Your task to perform on an android device: Open wifi settings Image 0: 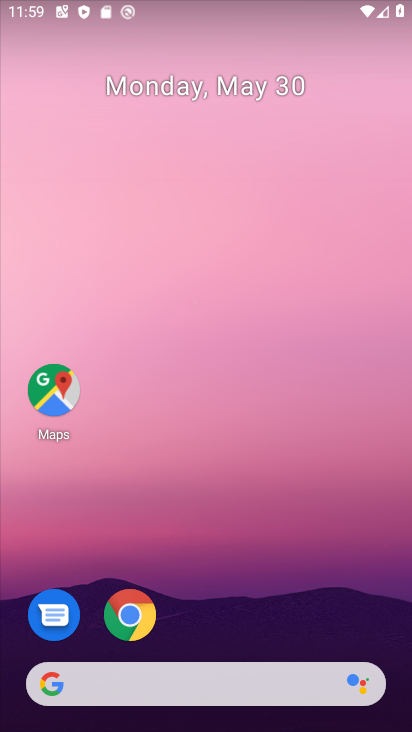
Step 0: drag from (254, 644) to (252, 17)
Your task to perform on an android device: Open wifi settings Image 1: 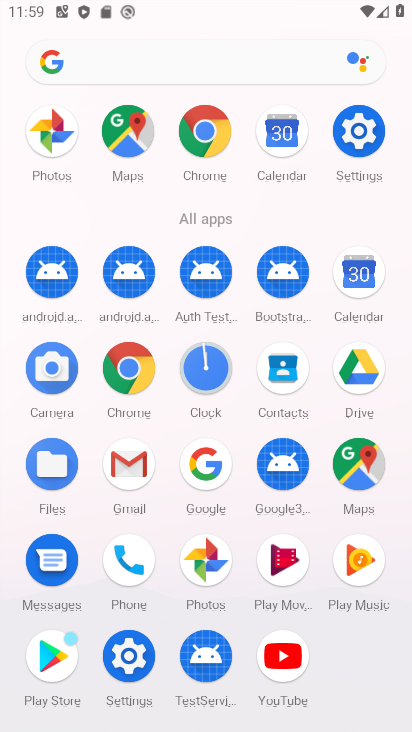
Step 1: click (365, 176)
Your task to perform on an android device: Open wifi settings Image 2: 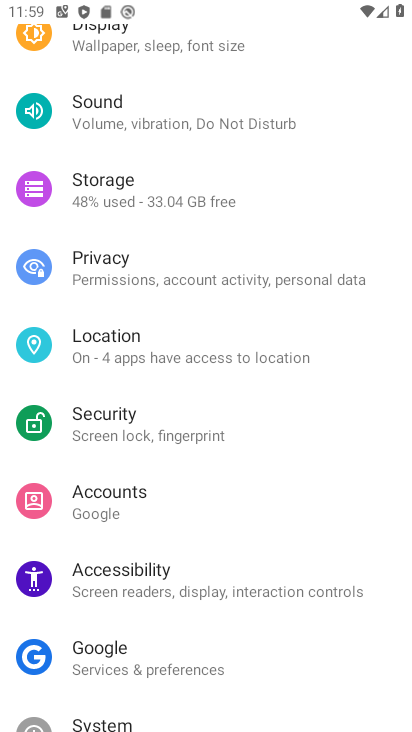
Step 2: drag from (242, 182) to (193, 594)
Your task to perform on an android device: Open wifi settings Image 3: 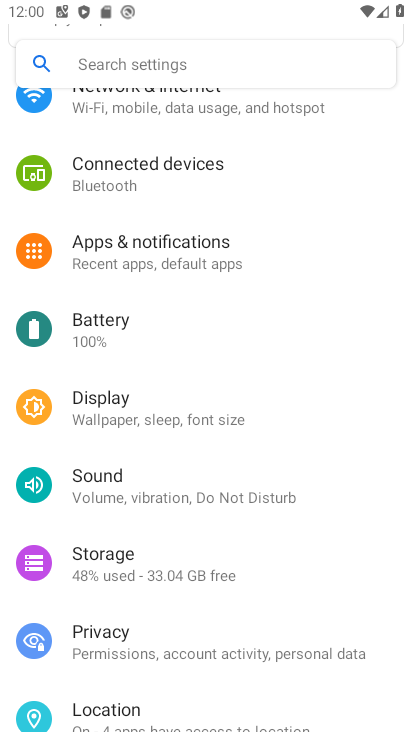
Step 3: drag from (230, 220) to (199, 588)
Your task to perform on an android device: Open wifi settings Image 4: 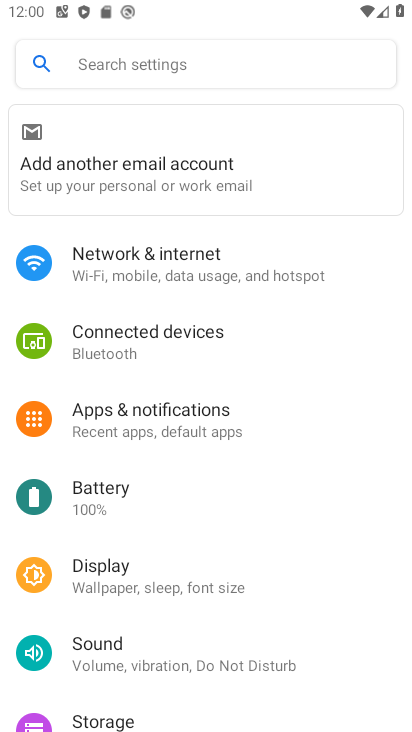
Step 4: click (151, 248)
Your task to perform on an android device: Open wifi settings Image 5: 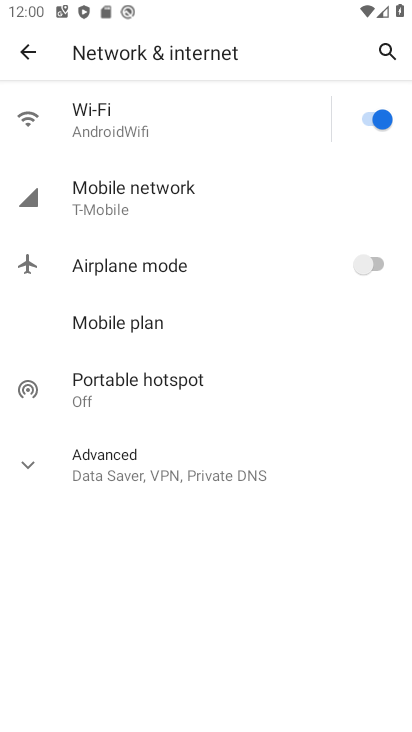
Step 5: click (156, 131)
Your task to perform on an android device: Open wifi settings Image 6: 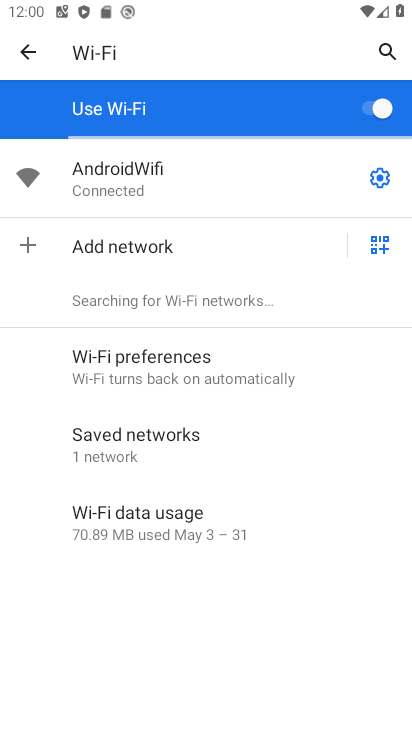
Step 6: task complete